Your task to perform on an android device: turn off priority inbox in the gmail app Image 0: 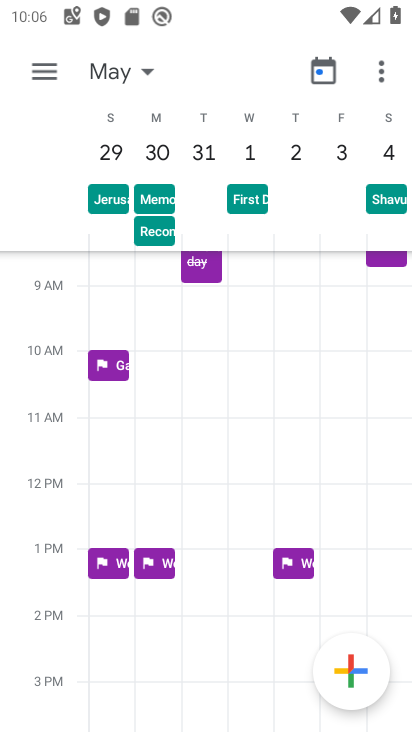
Step 0: press home button
Your task to perform on an android device: turn off priority inbox in the gmail app Image 1: 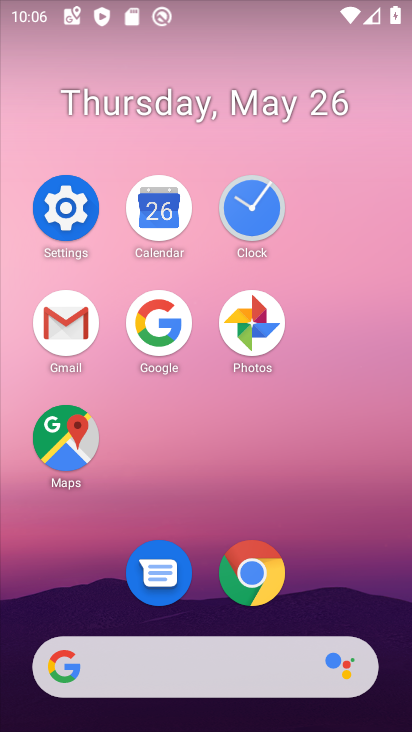
Step 1: click (74, 313)
Your task to perform on an android device: turn off priority inbox in the gmail app Image 2: 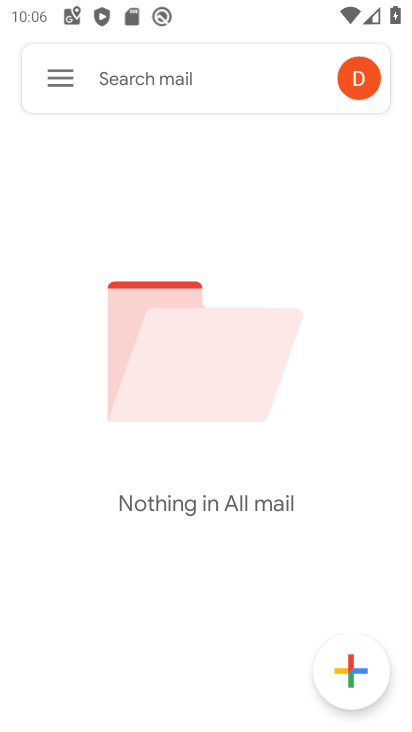
Step 2: click (58, 78)
Your task to perform on an android device: turn off priority inbox in the gmail app Image 3: 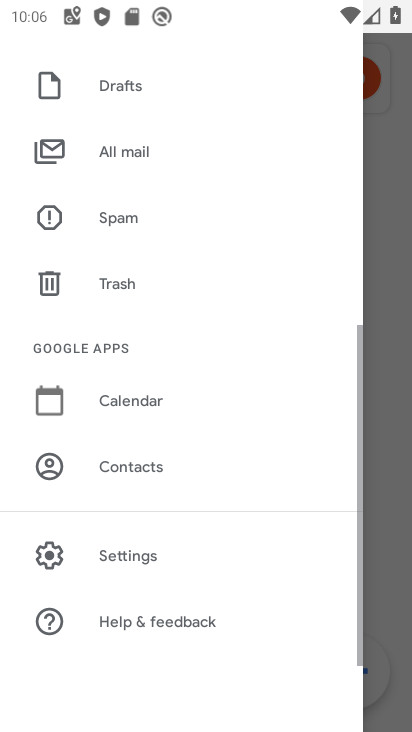
Step 3: drag from (209, 596) to (188, 284)
Your task to perform on an android device: turn off priority inbox in the gmail app Image 4: 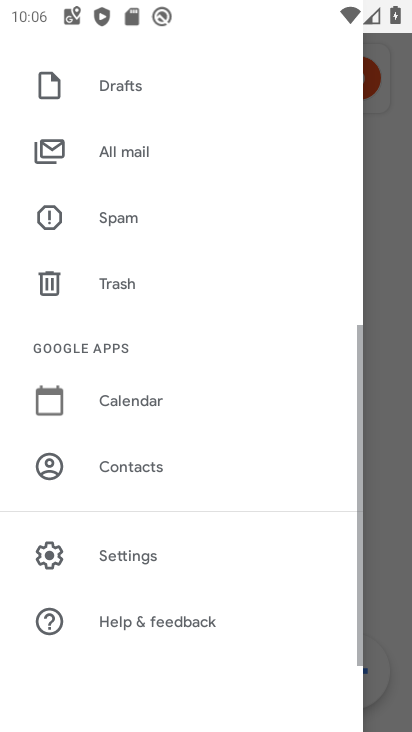
Step 4: click (143, 553)
Your task to perform on an android device: turn off priority inbox in the gmail app Image 5: 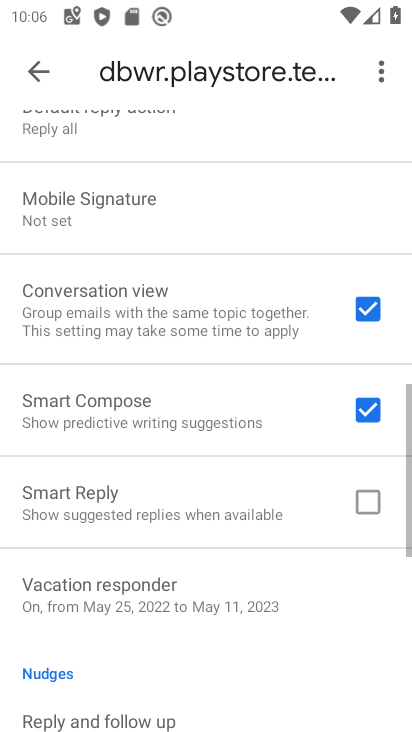
Step 5: drag from (142, 552) to (209, 607)
Your task to perform on an android device: turn off priority inbox in the gmail app Image 6: 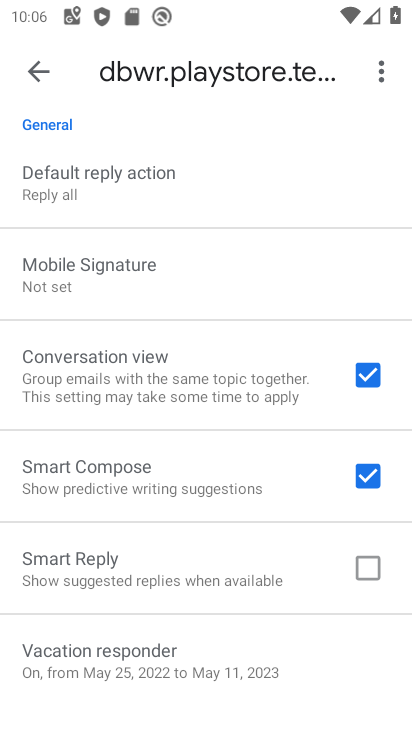
Step 6: drag from (169, 158) to (191, 561)
Your task to perform on an android device: turn off priority inbox in the gmail app Image 7: 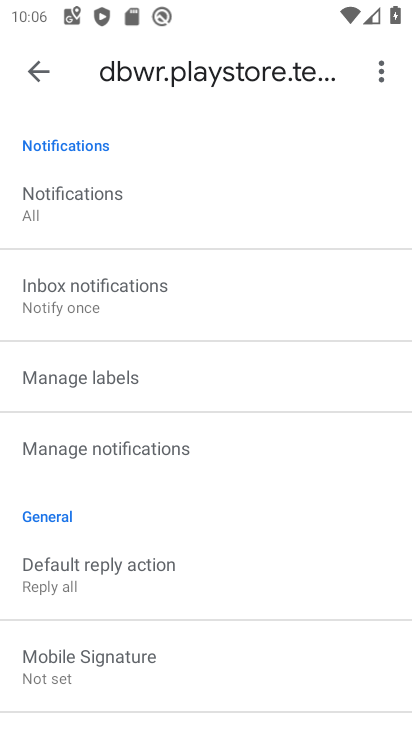
Step 7: drag from (239, 243) to (240, 358)
Your task to perform on an android device: turn off priority inbox in the gmail app Image 8: 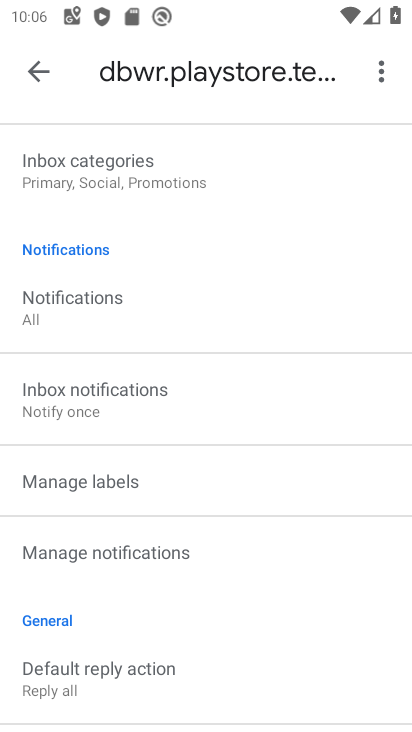
Step 8: drag from (207, 214) to (197, 570)
Your task to perform on an android device: turn off priority inbox in the gmail app Image 9: 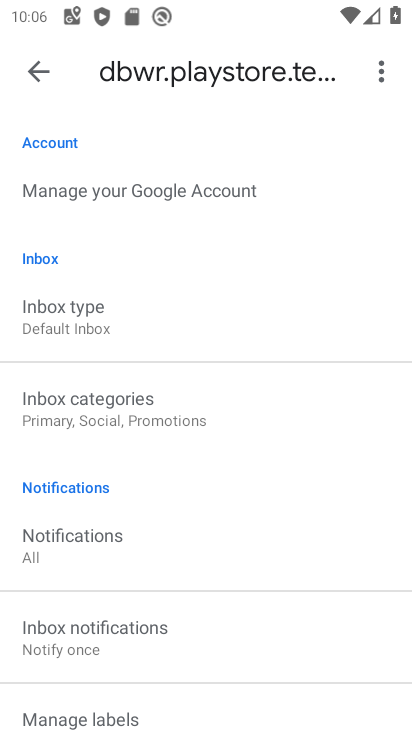
Step 9: click (143, 347)
Your task to perform on an android device: turn off priority inbox in the gmail app Image 10: 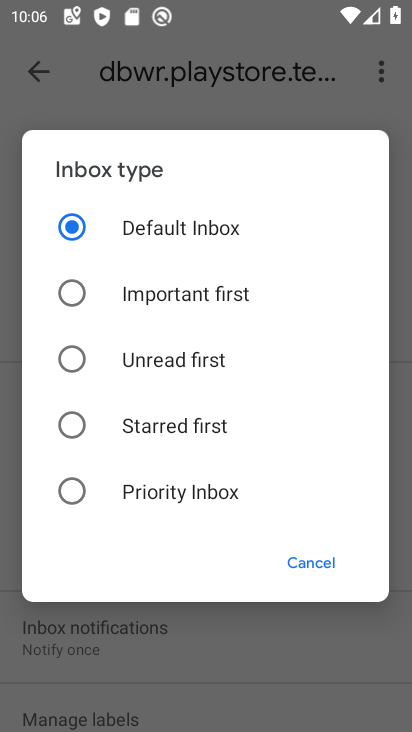
Step 10: task complete